Your task to perform on an android device: turn off location history Image 0: 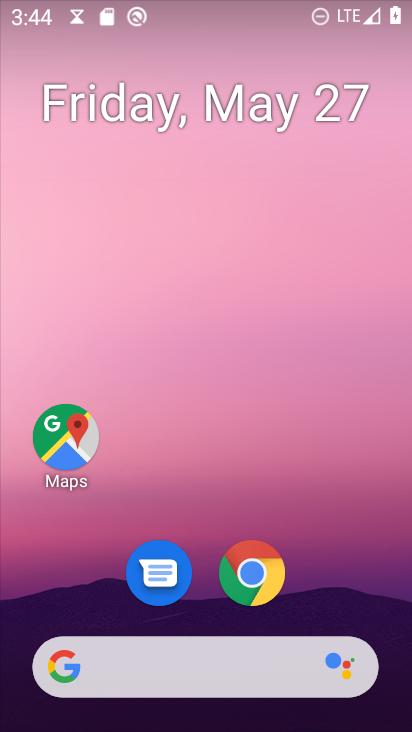
Step 0: drag from (373, 593) to (385, 24)
Your task to perform on an android device: turn off location history Image 1: 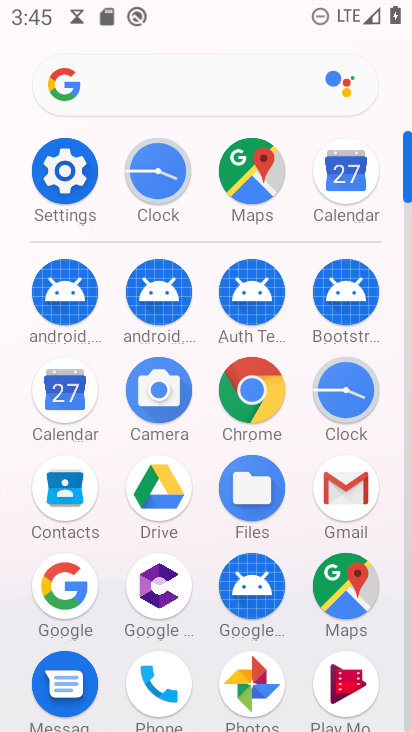
Step 1: click (72, 157)
Your task to perform on an android device: turn off location history Image 2: 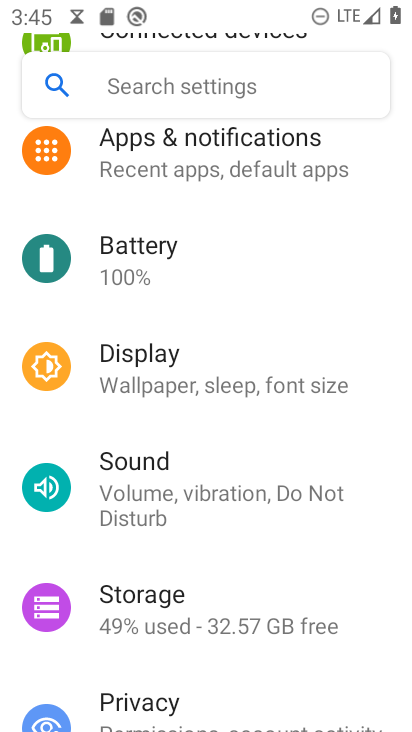
Step 2: drag from (220, 653) to (318, 184)
Your task to perform on an android device: turn off location history Image 3: 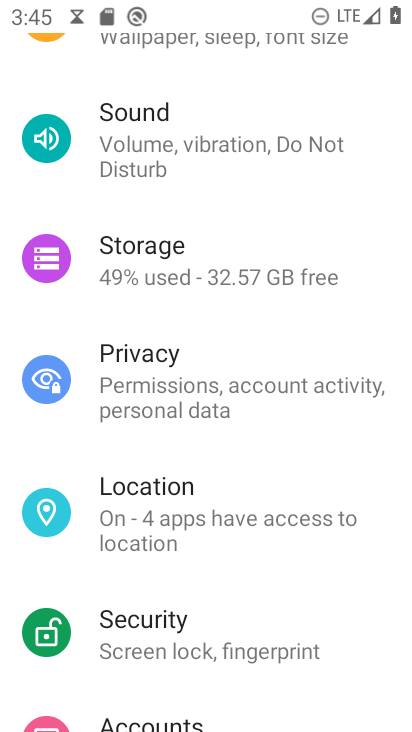
Step 3: click (196, 512)
Your task to perform on an android device: turn off location history Image 4: 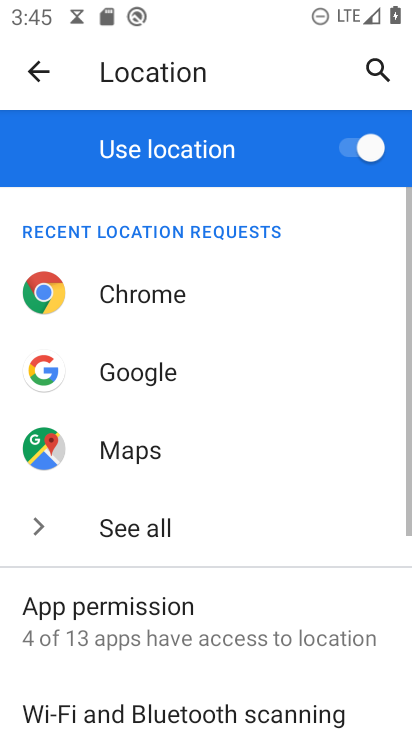
Step 4: drag from (192, 654) to (279, 192)
Your task to perform on an android device: turn off location history Image 5: 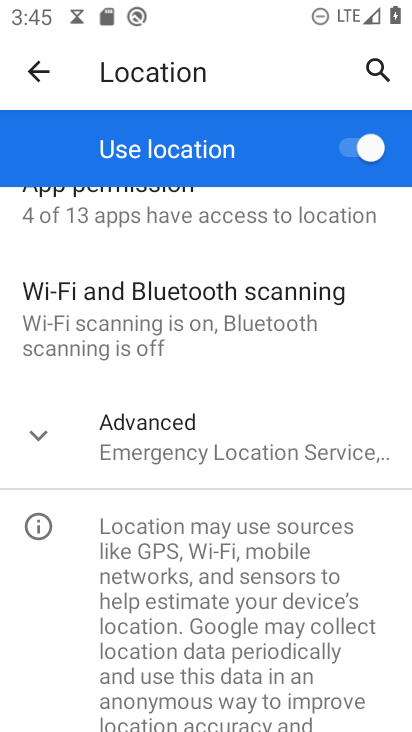
Step 5: click (179, 452)
Your task to perform on an android device: turn off location history Image 6: 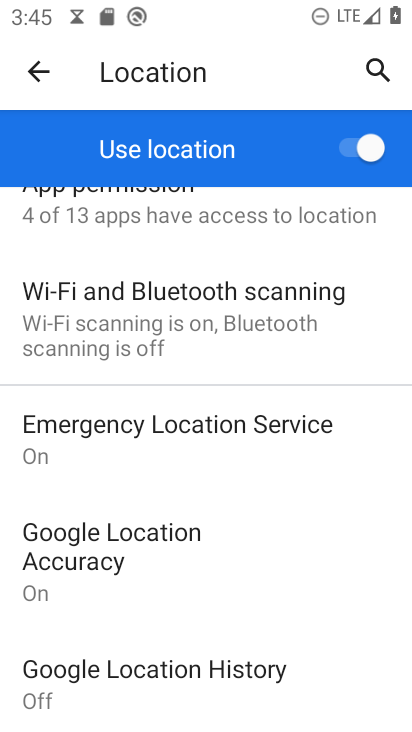
Step 6: click (159, 685)
Your task to perform on an android device: turn off location history Image 7: 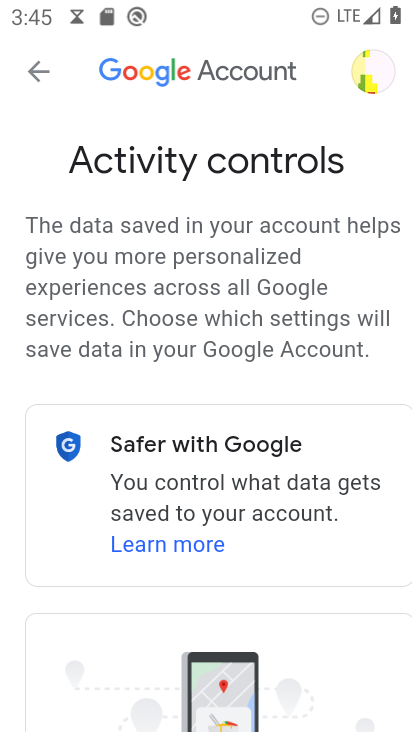
Step 7: drag from (148, 673) to (168, 106)
Your task to perform on an android device: turn off location history Image 8: 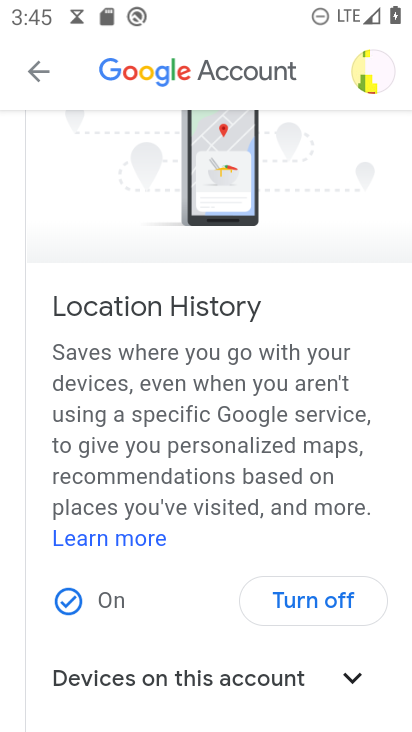
Step 8: click (284, 594)
Your task to perform on an android device: turn off location history Image 9: 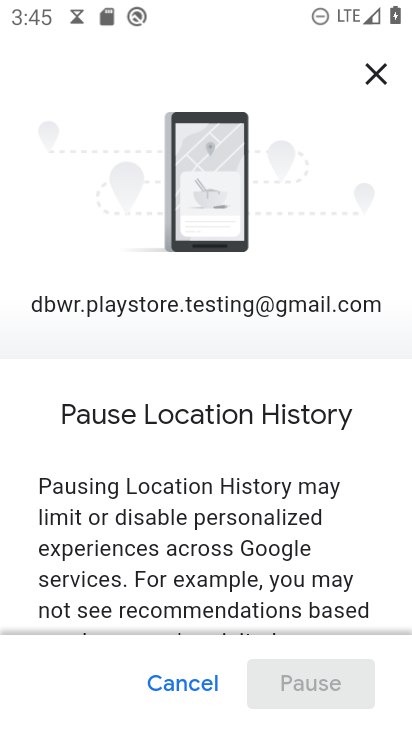
Step 9: drag from (292, 575) to (278, 0)
Your task to perform on an android device: turn off location history Image 10: 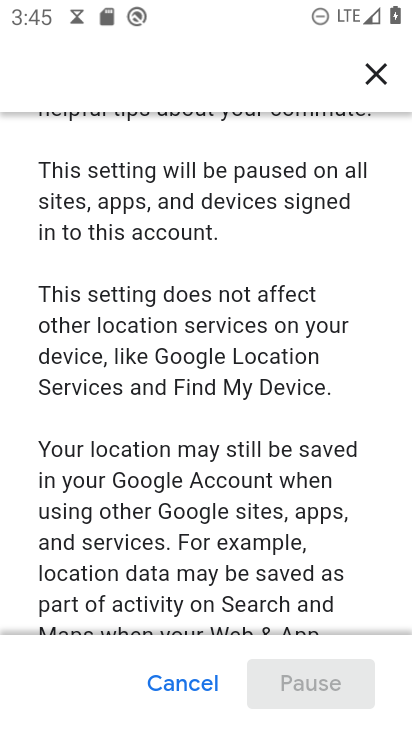
Step 10: drag from (228, 568) to (240, 105)
Your task to perform on an android device: turn off location history Image 11: 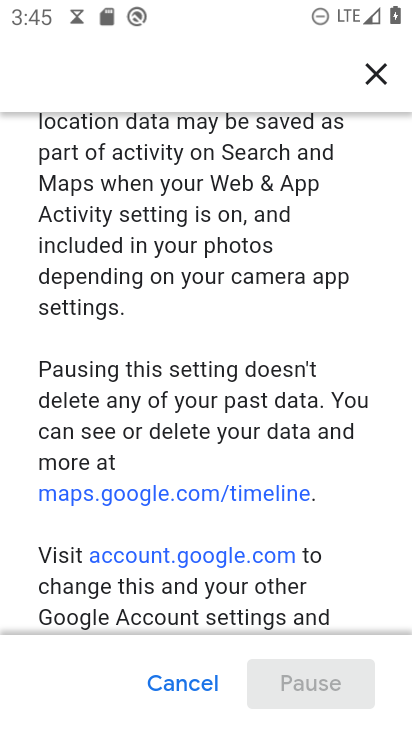
Step 11: drag from (228, 606) to (269, 0)
Your task to perform on an android device: turn off location history Image 12: 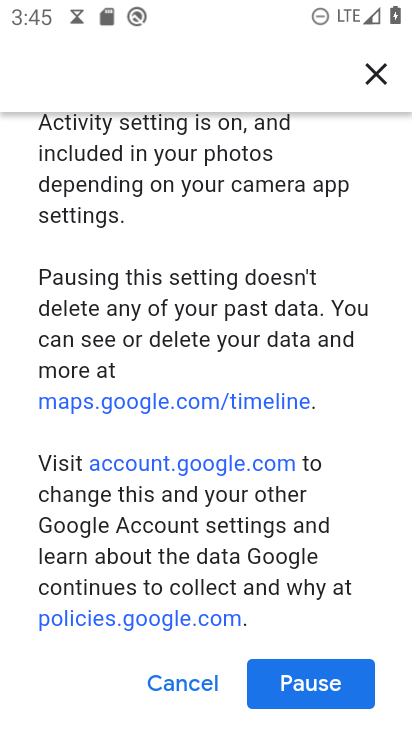
Step 12: click (285, 689)
Your task to perform on an android device: turn off location history Image 13: 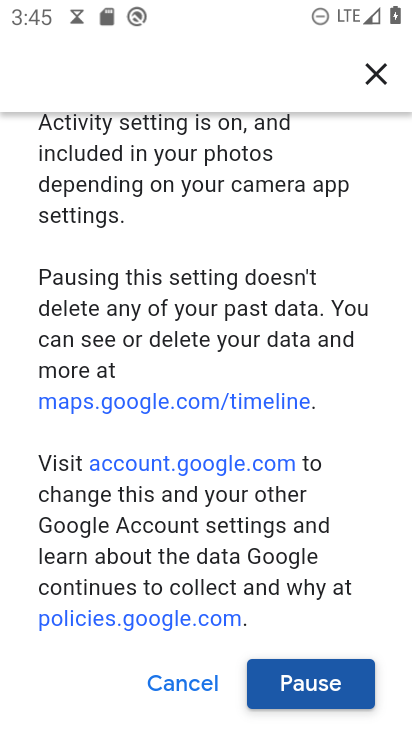
Step 13: click (308, 678)
Your task to perform on an android device: turn off location history Image 14: 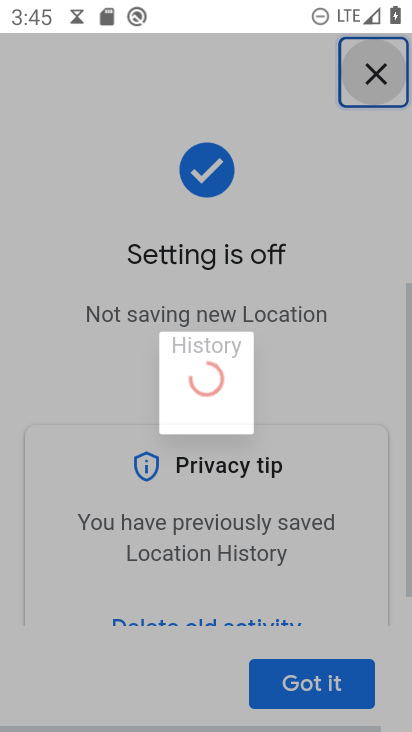
Step 14: click (311, 679)
Your task to perform on an android device: turn off location history Image 15: 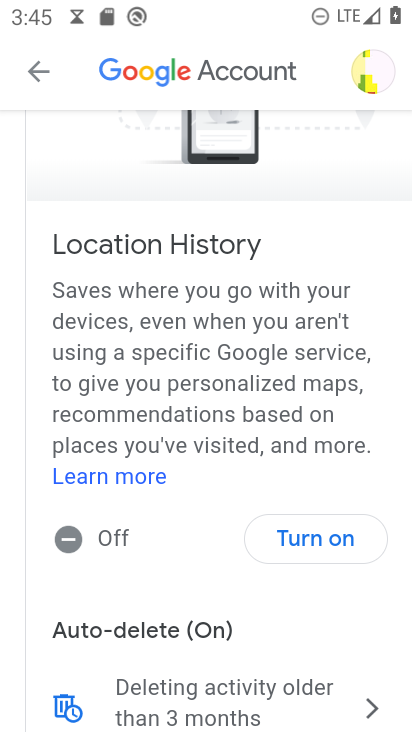
Step 15: task complete